Your task to perform on an android device: Open the map Image 0: 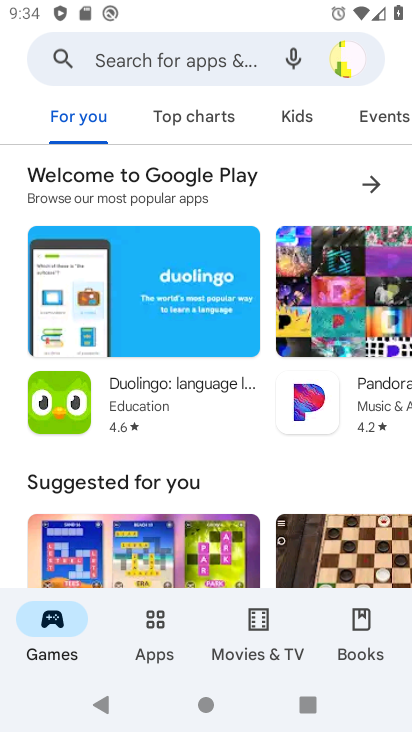
Step 0: press back button
Your task to perform on an android device: Open the map Image 1: 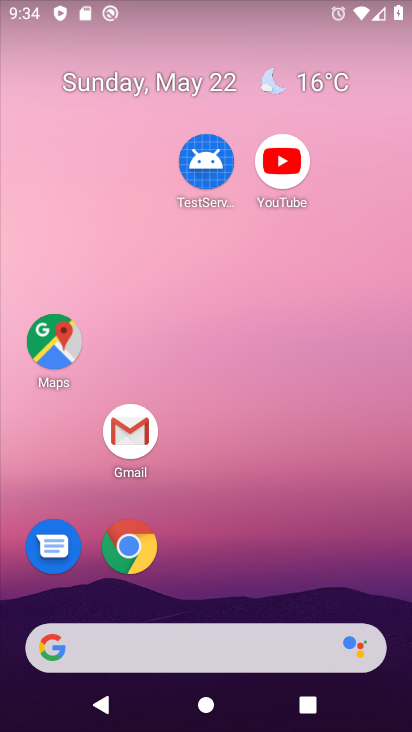
Step 1: drag from (267, 712) to (184, 8)
Your task to perform on an android device: Open the map Image 2: 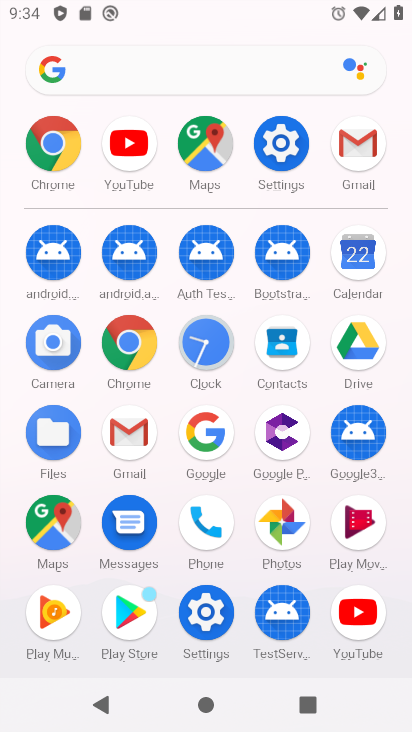
Step 2: click (188, 159)
Your task to perform on an android device: Open the map Image 3: 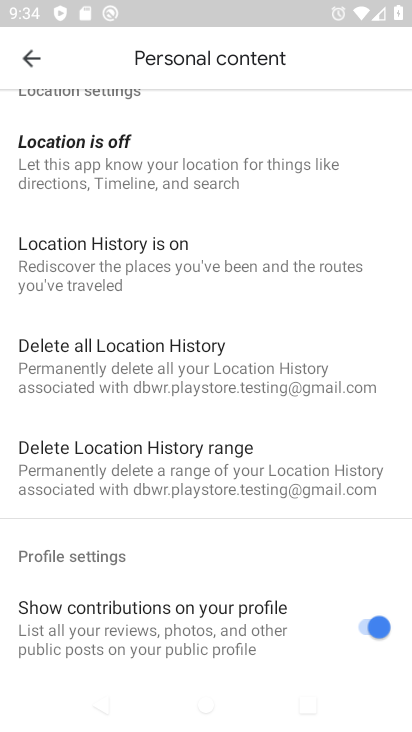
Step 3: click (36, 53)
Your task to perform on an android device: Open the map Image 4: 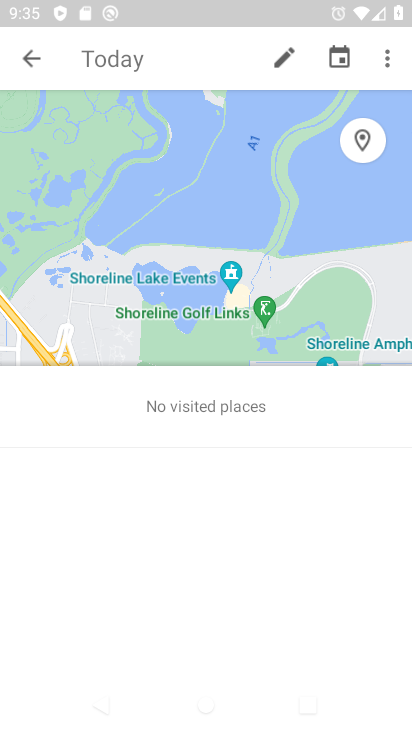
Step 4: task complete